Your task to perform on an android device: open device folders in google photos Image 0: 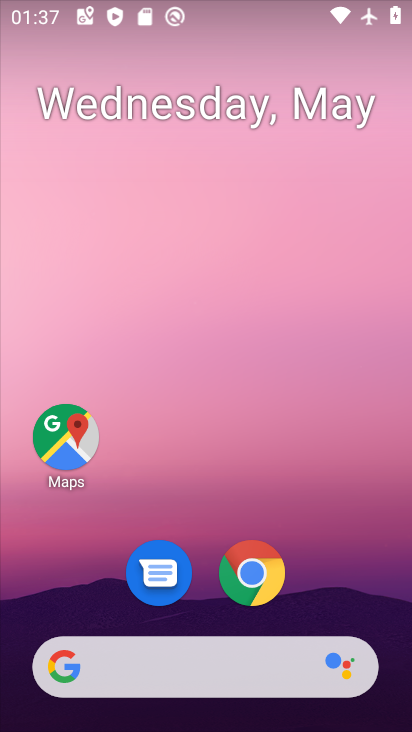
Step 0: drag from (298, 506) to (298, 264)
Your task to perform on an android device: open device folders in google photos Image 1: 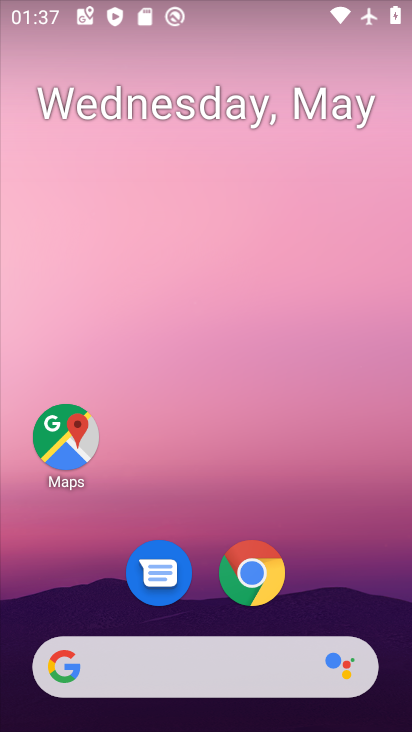
Step 1: drag from (319, 555) to (288, 283)
Your task to perform on an android device: open device folders in google photos Image 2: 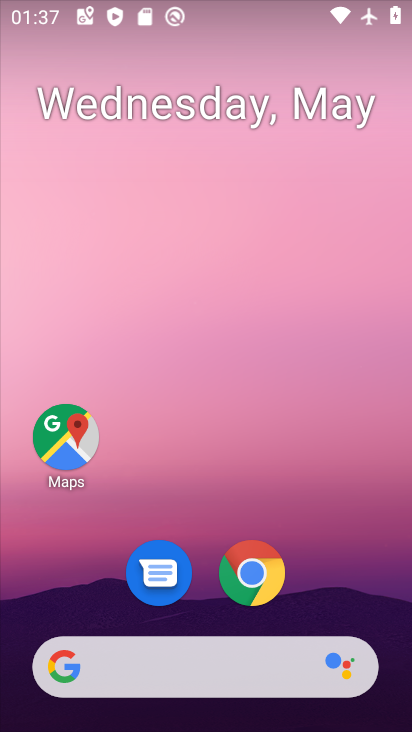
Step 2: drag from (290, 361) to (291, 200)
Your task to perform on an android device: open device folders in google photos Image 3: 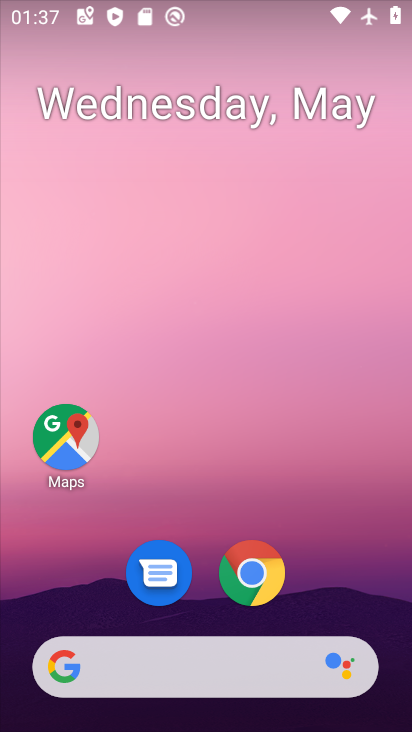
Step 3: drag from (341, 599) to (314, 134)
Your task to perform on an android device: open device folders in google photos Image 4: 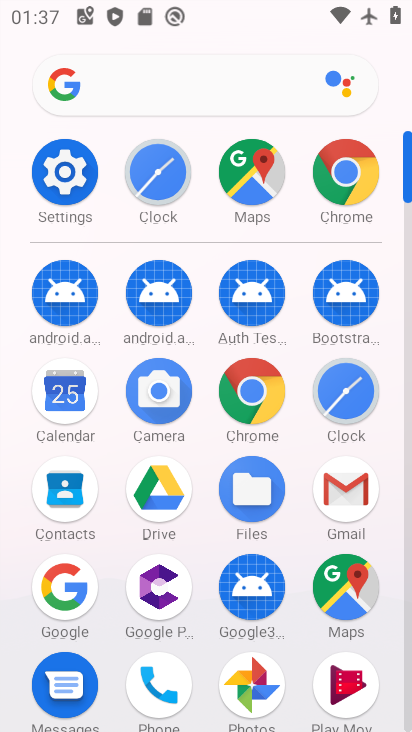
Step 4: click (259, 693)
Your task to perform on an android device: open device folders in google photos Image 5: 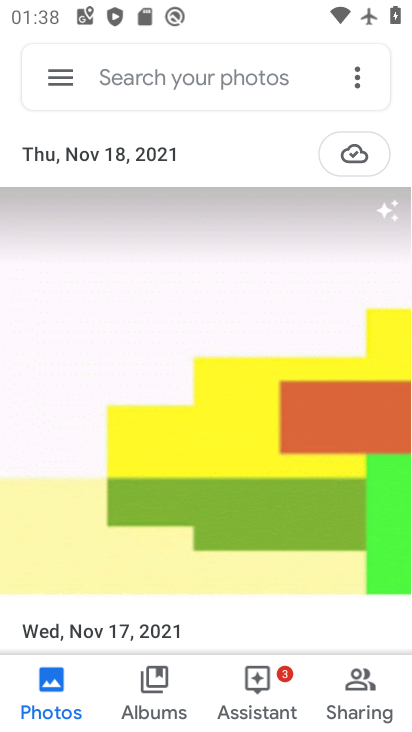
Step 5: task complete